Your task to perform on an android device: Go to notification settings Image 0: 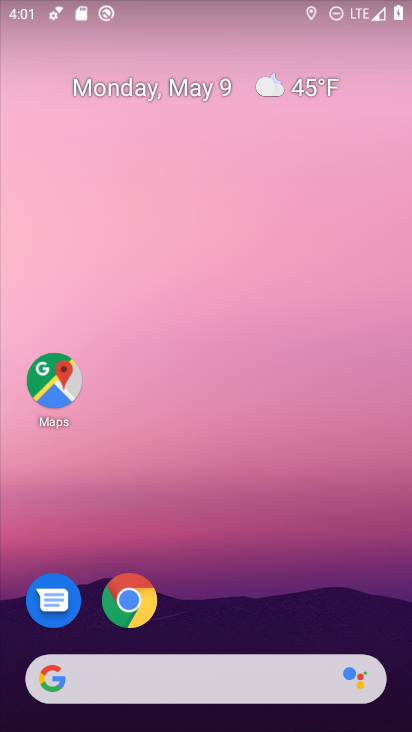
Step 0: drag from (281, 628) to (303, 36)
Your task to perform on an android device: Go to notification settings Image 1: 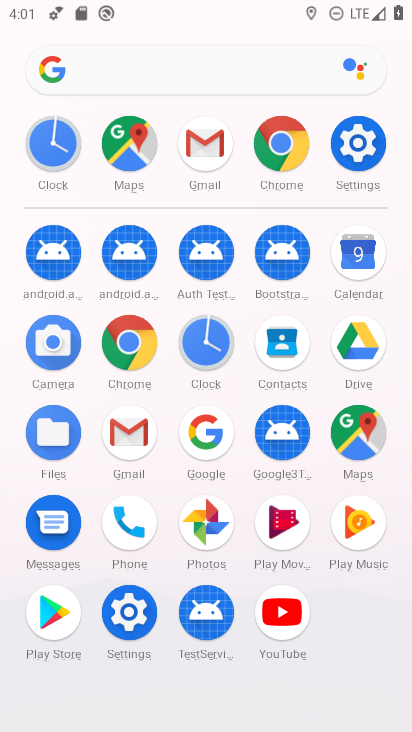
Step 1: click (375, 145)
Your task to perform on an android device: Go to notification settings Image 2: 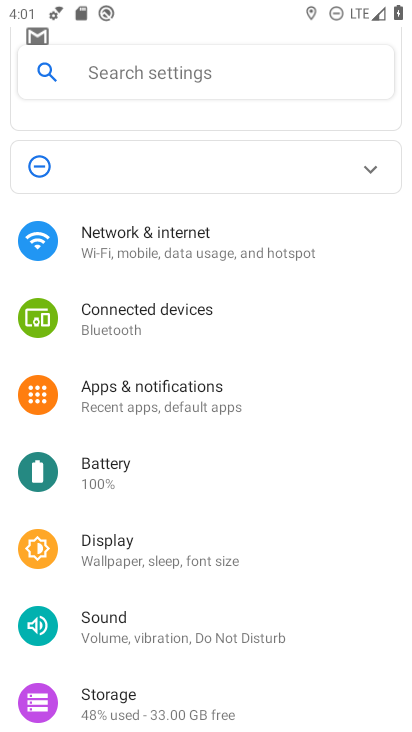
Step 2: click (167, 400)
Your task to perform on an android device: Go to notification settings Image 3: 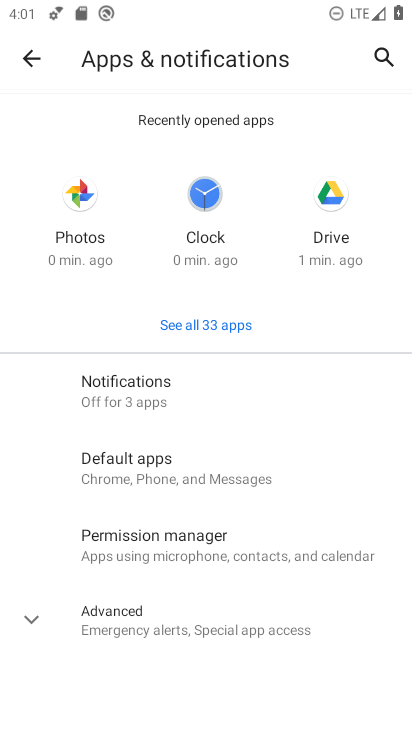
Step 3: click (148, 399)
Your task to perform on an android device: Go to notification settings Image 4: 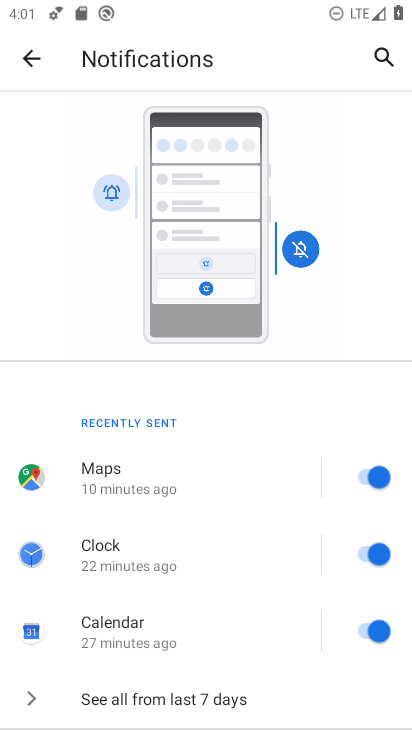
Step 4: task complete